Your task to perform on an android device: Go to battery settings Image 0: 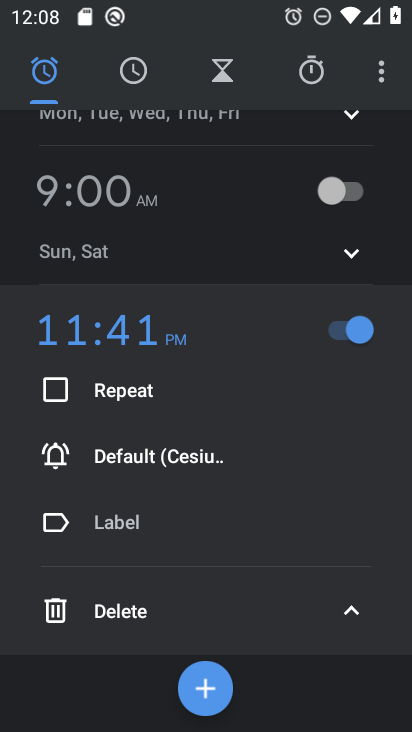
Step 0: press home button
Your task to perform on an android device: Go to battery settings Image 1: 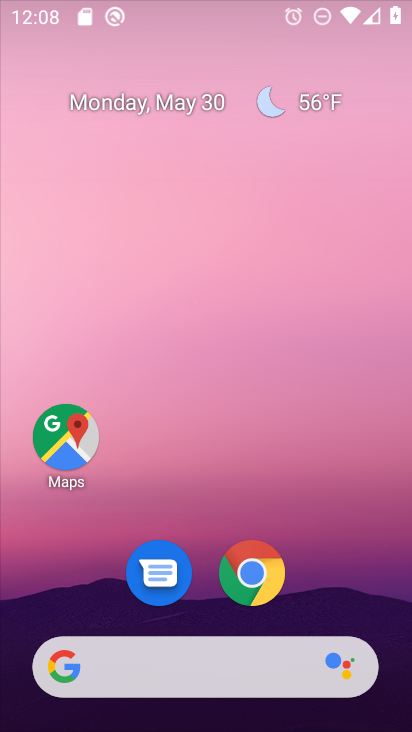
Step 1: drag from (351, 584) to (335, 39)
Your task to perform on an android device: Go to battery settings Image 2: 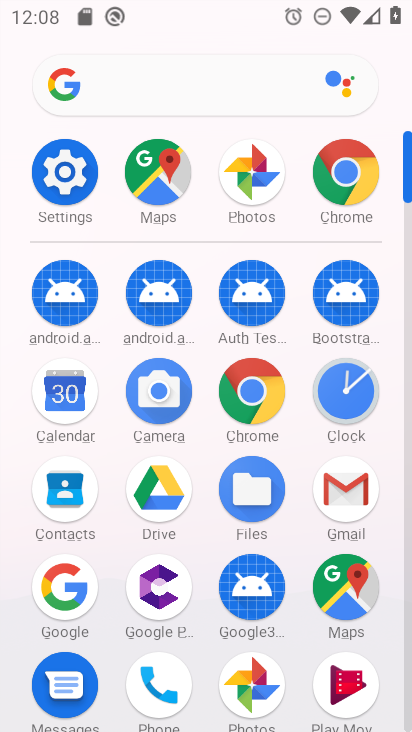
Step 2: click (55, 174)
Your task to perform on an android device: Go to battery settings Image 3: 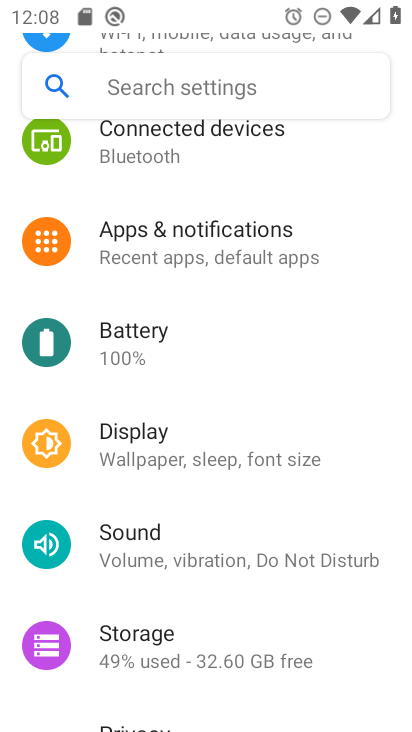
Step 3: click (181, 354)
Your task to perform on an android device: Go to battery settings Image 4: 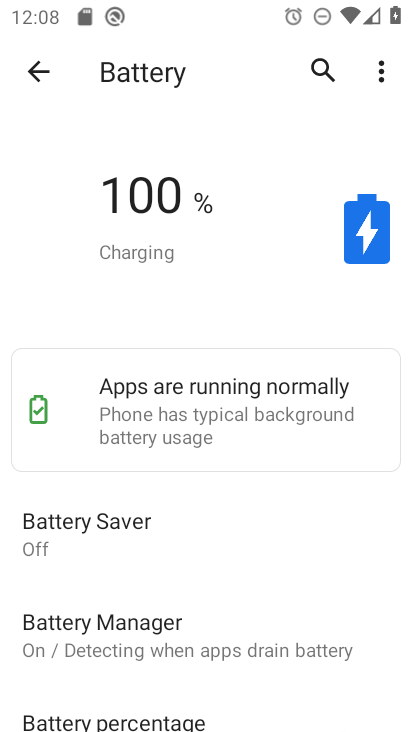
Step 4: task complete